Your task to perform on an android device: Open notification settings Image 0: 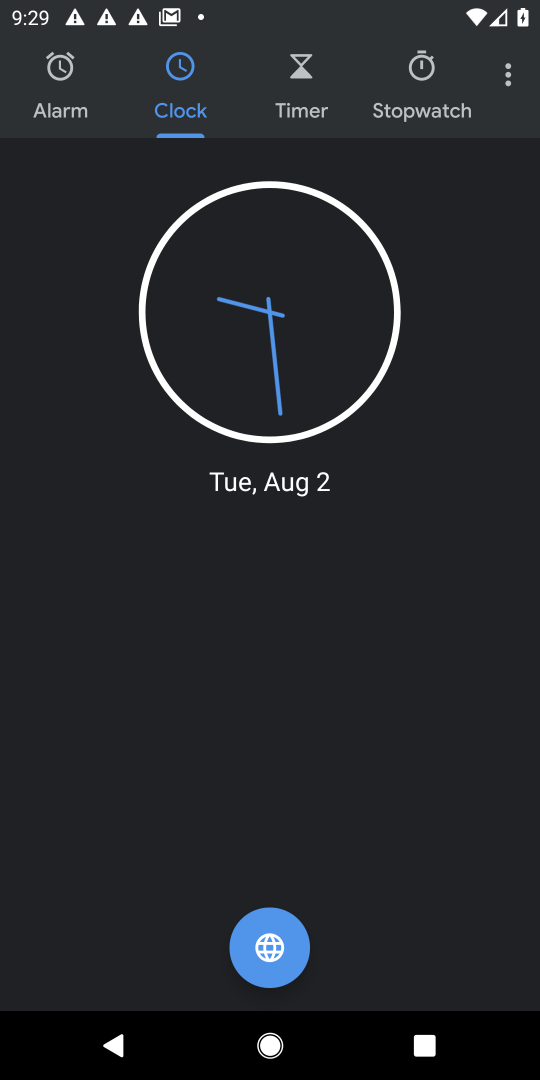
Step 0: press back button
Your task to perform on an android device: Open notification settings Image 1: 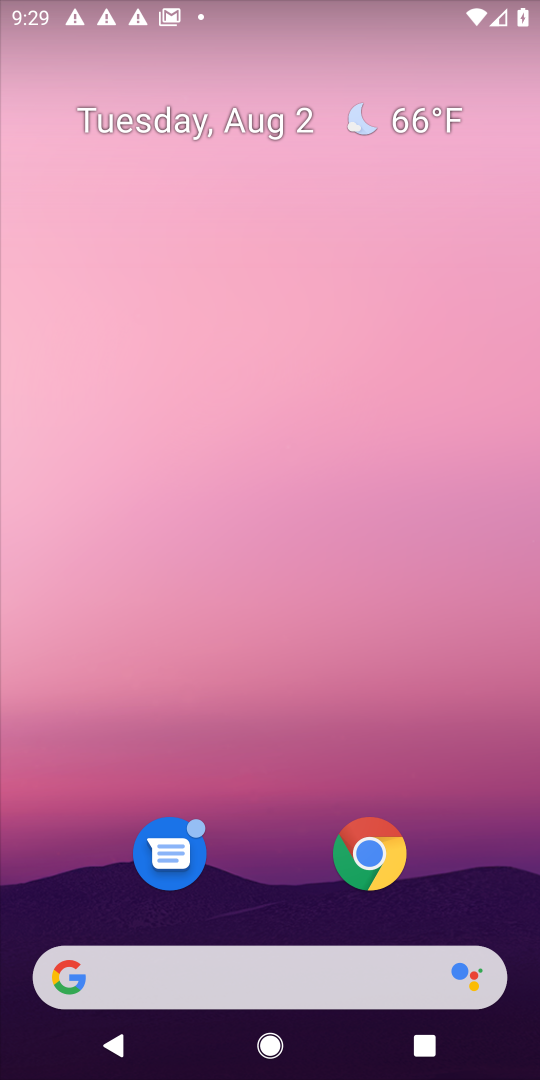
Step 1: drag from (214, 968) to (313, 41)
Your task to perform on an android device: Open notification settings Image 2: 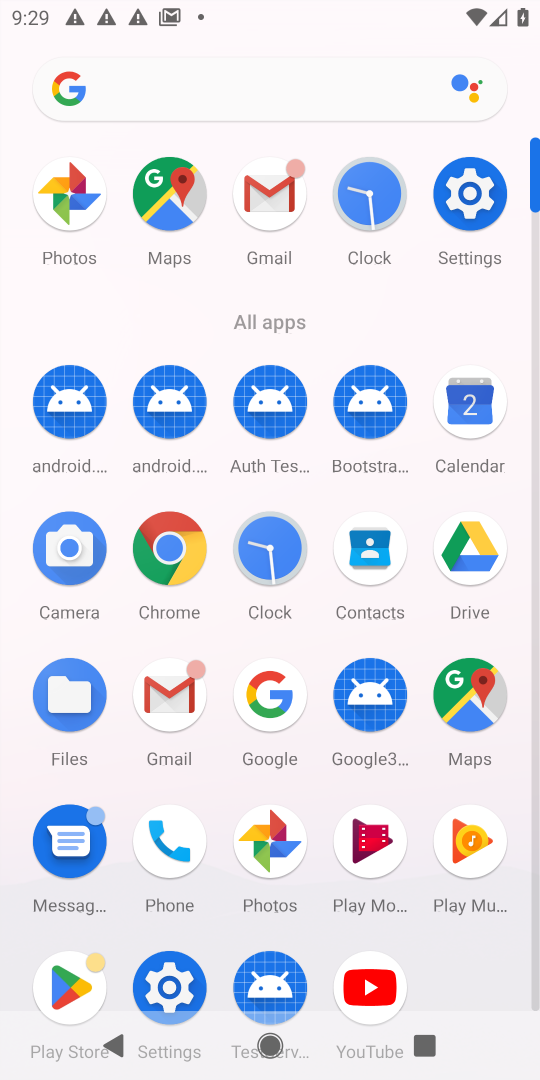
Step 2: click (171, 977)
Your task to perform on an android device: Open notification settings Image 3: 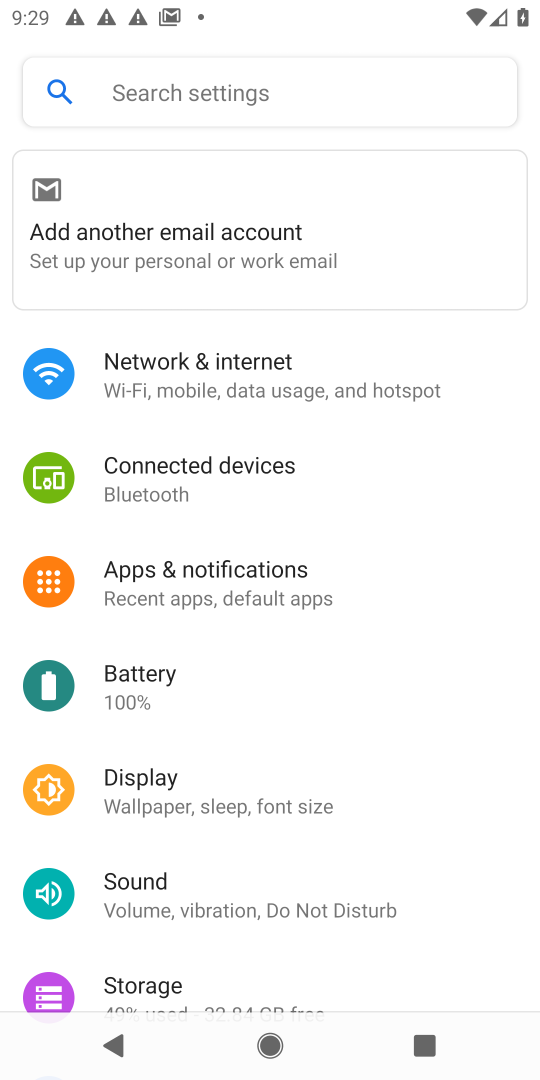
Step 3: click (222, 596)
Your task to perform on an android device: Open notification settings Image 4: 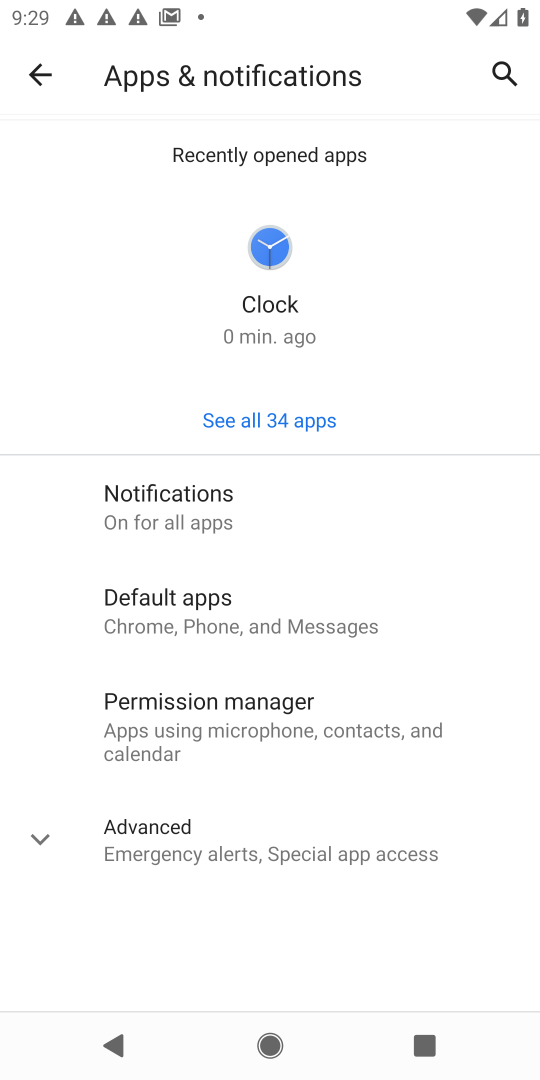
Step 4: click (210, 511)
Your task to perform on an android device: Open notification settings Image 5: 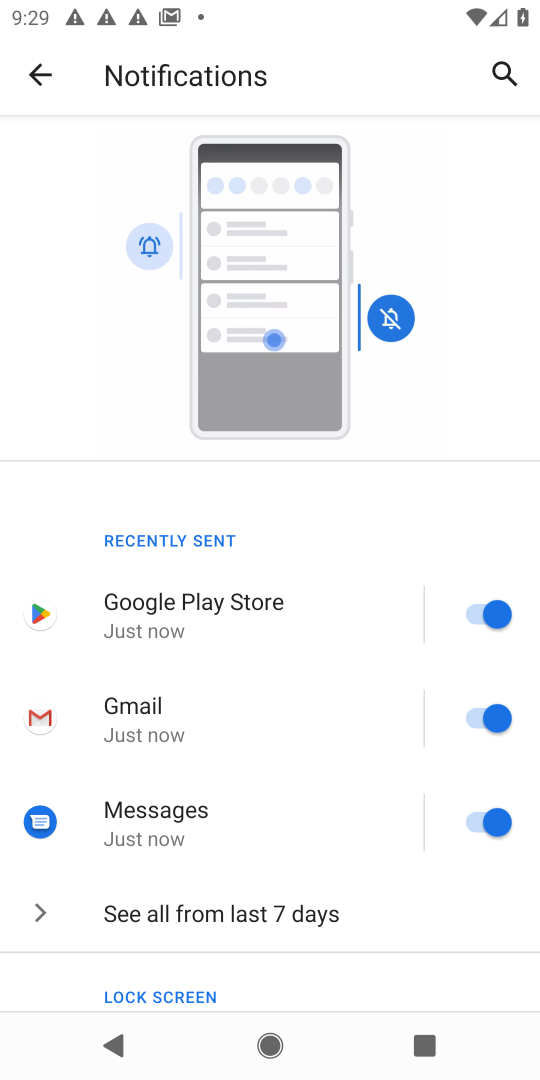
Step 5: task complete